Your task to perform on an android device: Go to Yahoo.com Image 0: 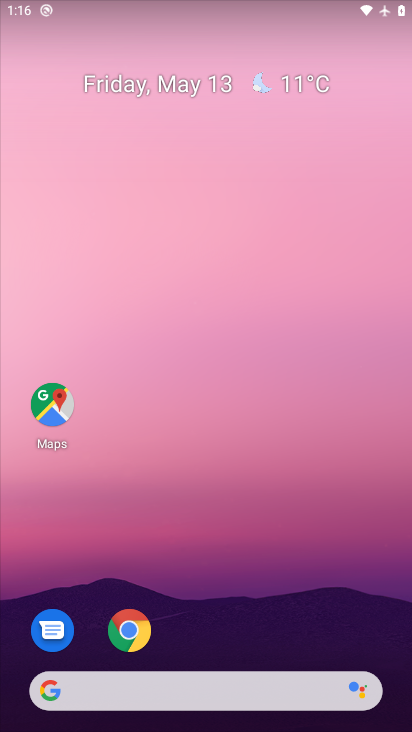
Step 0: drag from (255, 639) to (279, 259)
Your task to perform on an android device: Go to Yahoo.com Image 1: 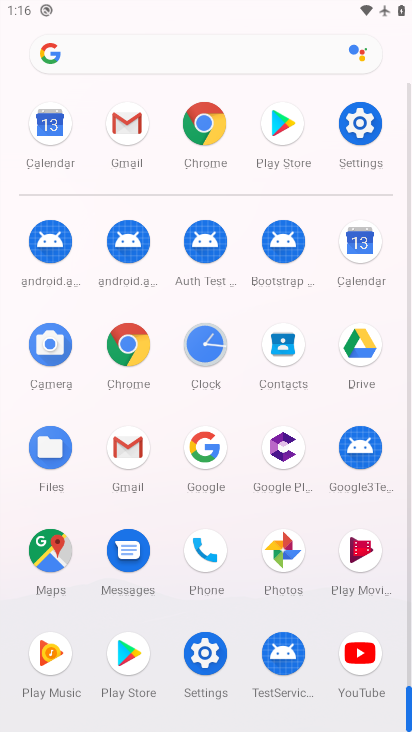
Step 1: click (133, 368)
Your task to perform on an android device: Go to Yahoo.com Image 2: 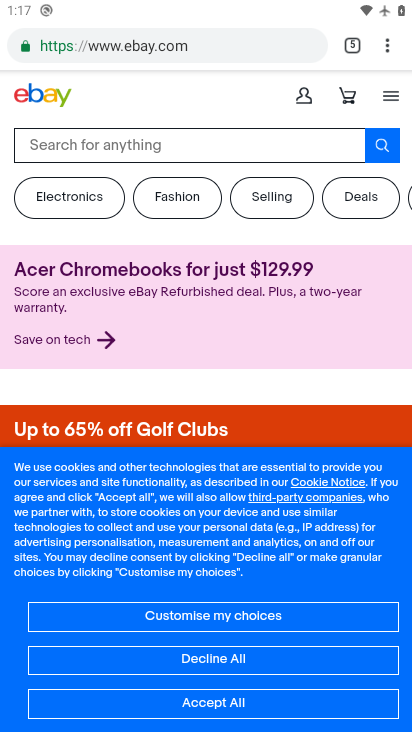
Step 2: click (344, 50)
Your task to perform on an android device: Go to Yahoo.com Image 3: 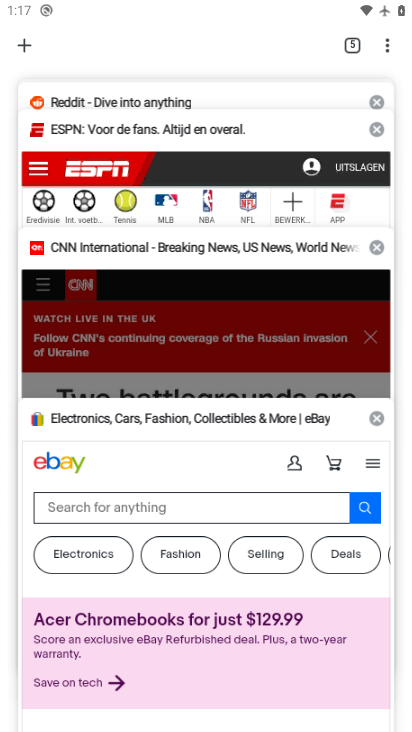
Step 3: click (22, 46)
Your task to perform on an android device: Go to Yahoo.com Image 4: 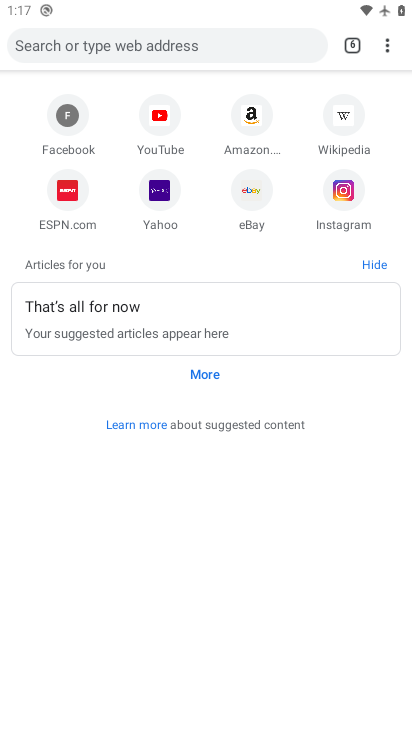
Step 4: click (161, 221)
Your task to perform on an android device: Go to Yahoo.com Image 5: 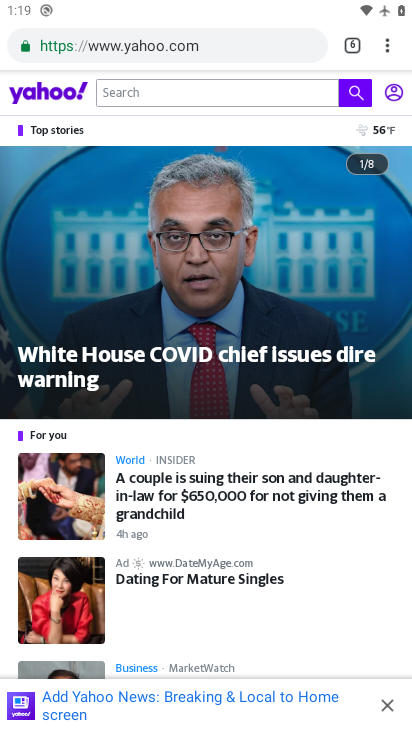
Step 5: task complete